Your task to perform on an android device: What's the weather going to be tomorrow? Image 0: 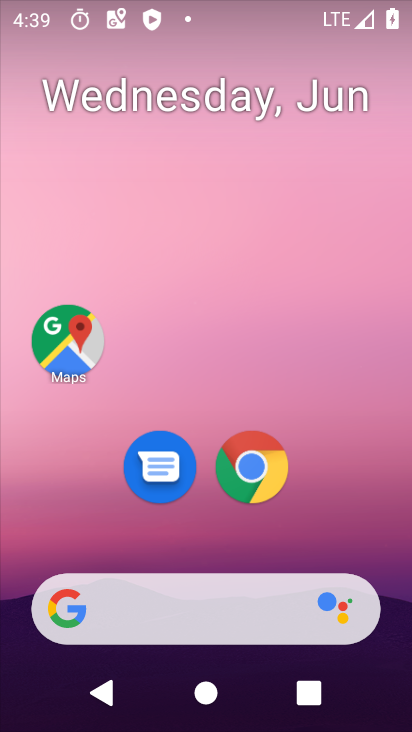
Step 0: press home button
Your task to perform on an android device: What's the weather going to be tomorrow? Image 1: 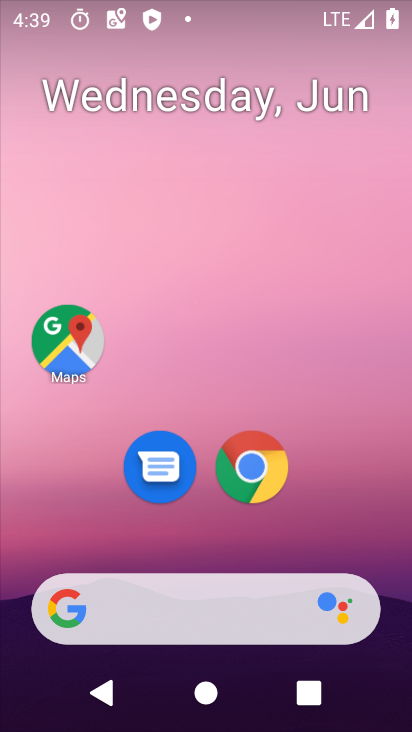
Step 1: drag from (313, 419) to (243, 35)
Your task to perform on an android device: What's the weather going to be tomorrow? Image 2: 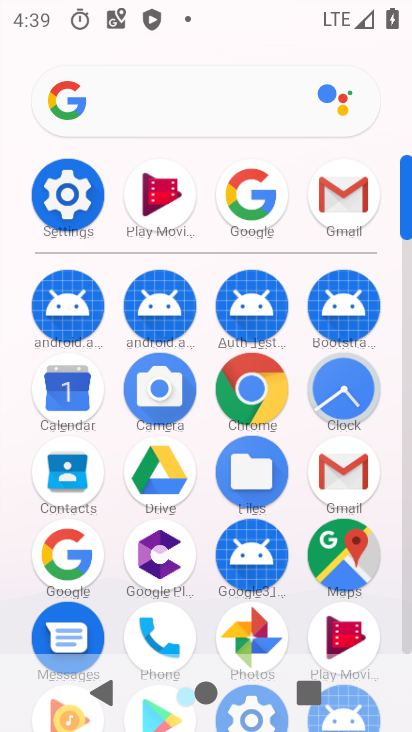
Step 2: click (258, 191)
Your task to perform on an android device: What's the weather going to be tomorrow? Image 3: 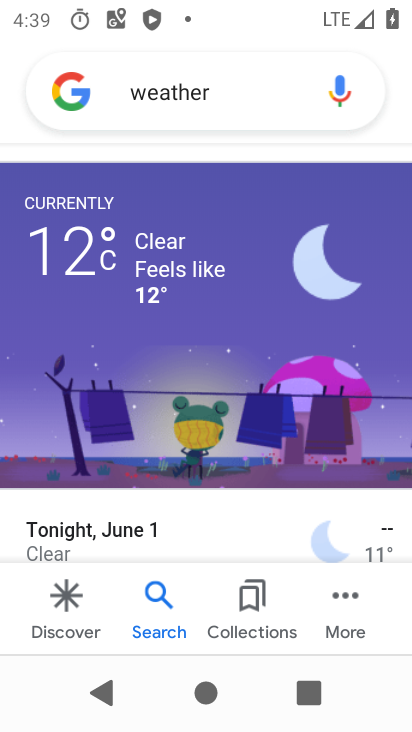
Step 3: drag from (227, 319) to (223, 583)
Your task to perform on an android device: What's the weather going to be tomorrow? Image 4: 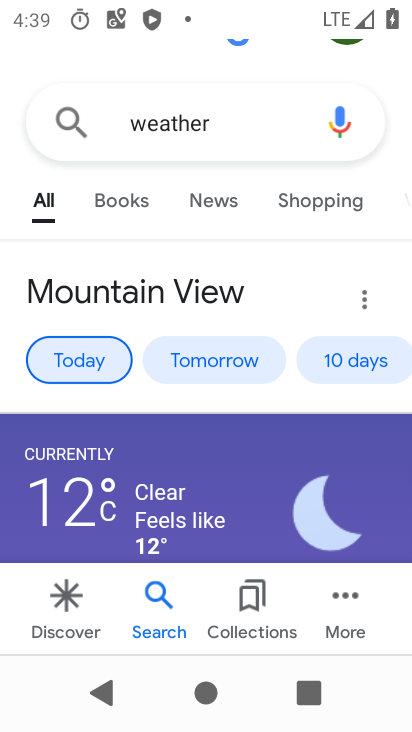
Step 4: click (220, 359)
Your task to perform on an android device: What's the weather going to be tomorrow? Image 5: 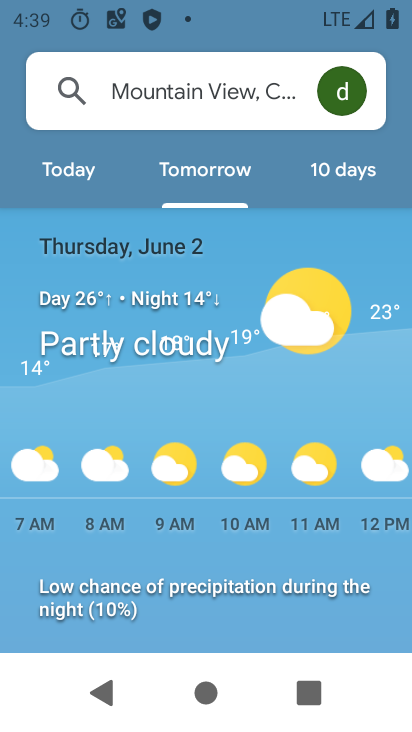
Step 5: task complete